Your task to perform on an android device: open sync settings in chrome Image 0: 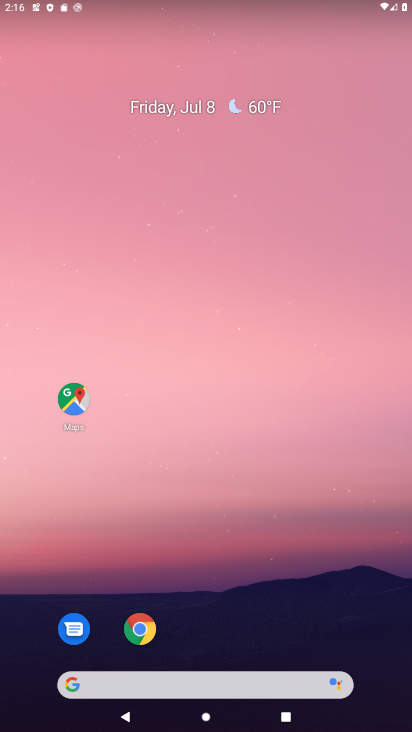
Step 0: click (146, 640)
Your task to perform on an android device: open sync settings in chrome Image 1: 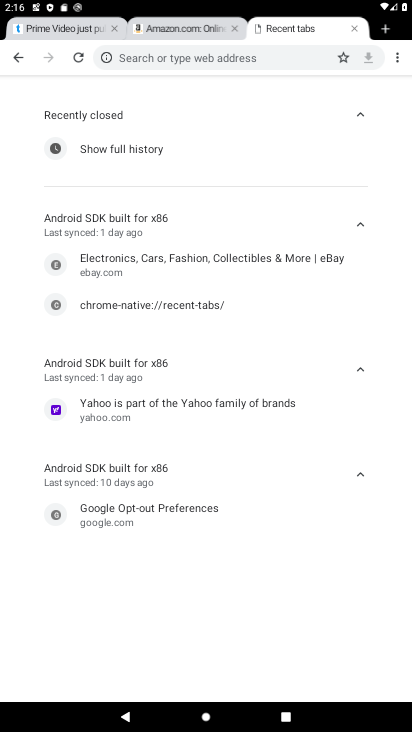
Step 1: click (399, 57)
Your task to perform on an android device: open sync settings in chrome Image 2: 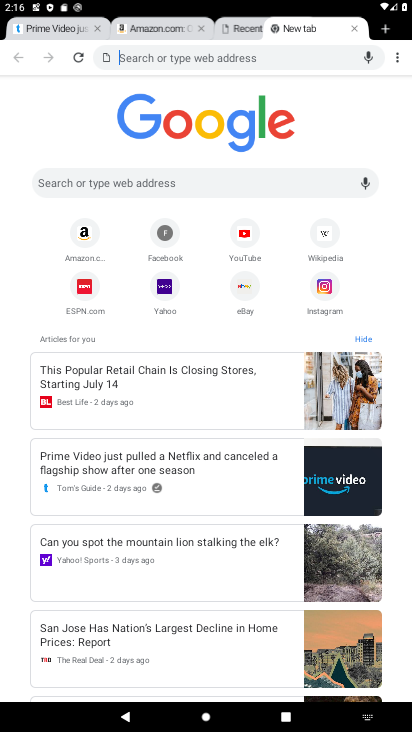
Step 2: drag from (399, 57) to (300, 265)
Your task to perform on an android device: open sync settings in chrome Image 3: 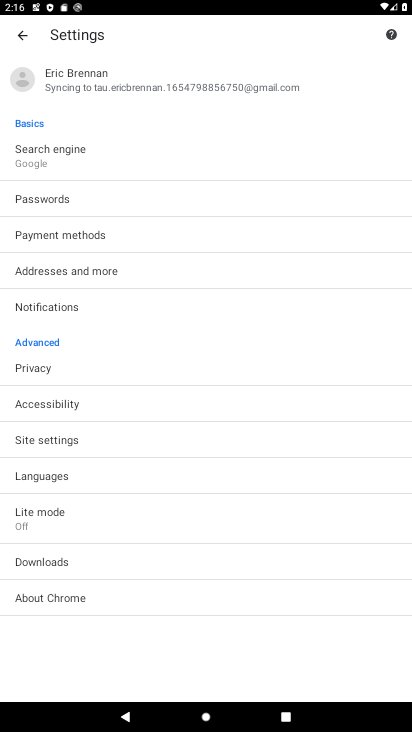
Step 3: click (150, 84)
Your task to perform on an android device: open sync settings in chrome Image 4: 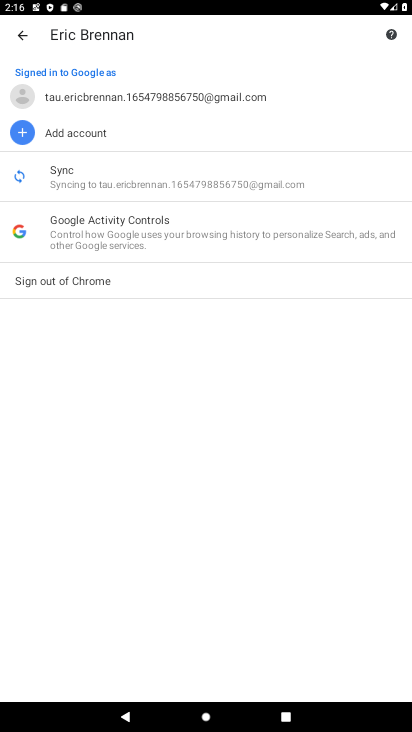
Step 4: click (118, 186)
Your task to perform on an android device: open sync settings in chrome Image 5: 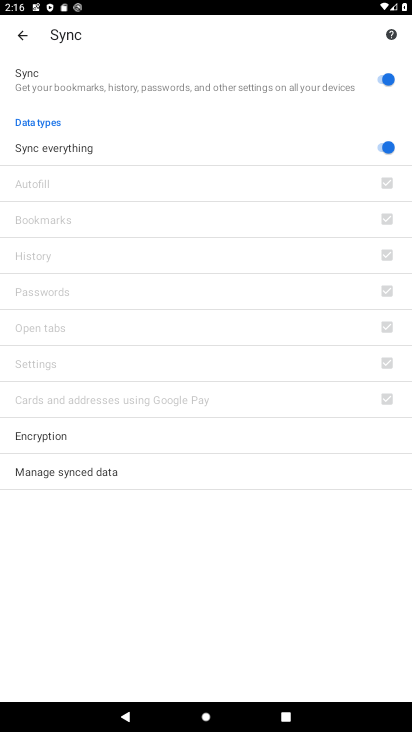
Step 5: task complete